Your task to perform on an android device: Clear the shopping cart on target.com. Add "razer kraken" to the cart on target.com Image 0: 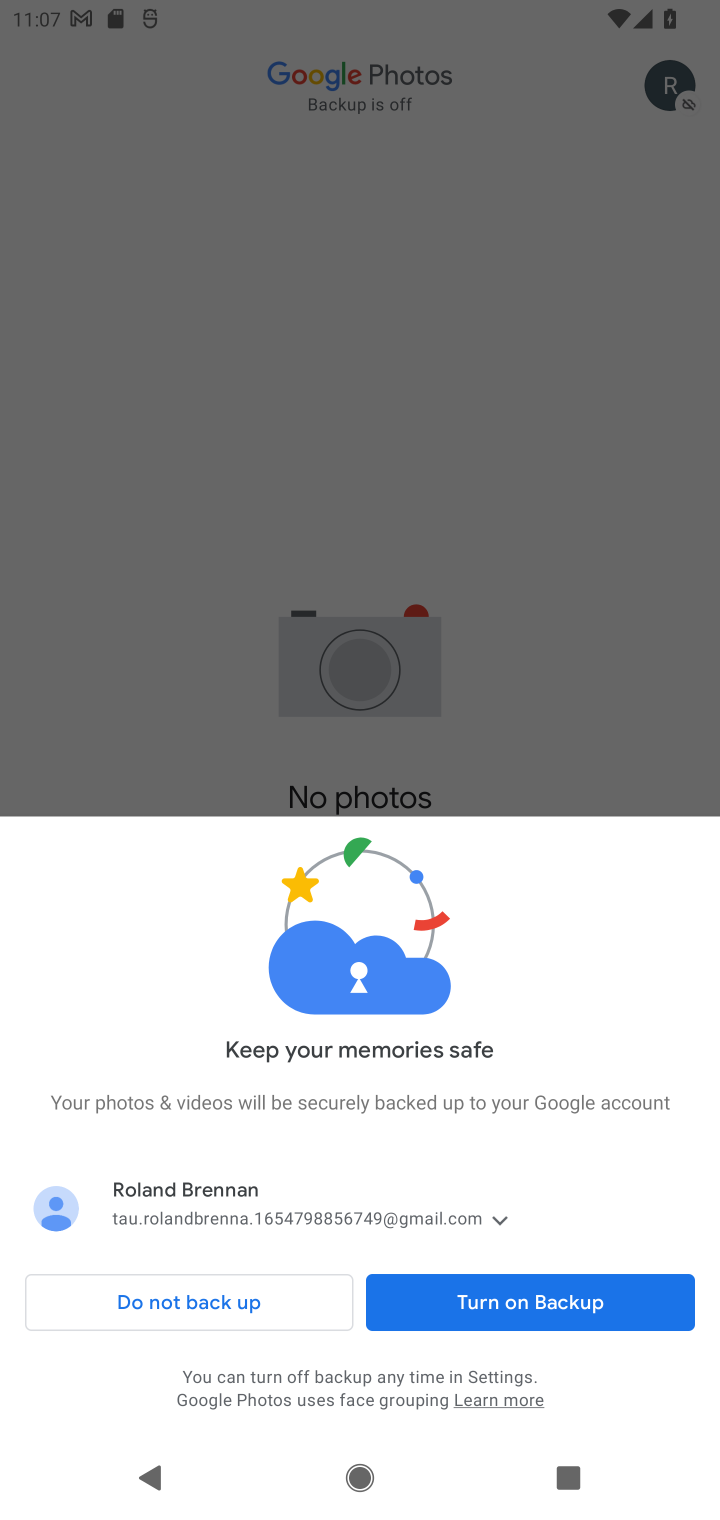
Step 0: press home button
Your task to perform on an android device: Clear the shopping cart on target.com. Add "razer kraken" to the cart on target.com Image 1: 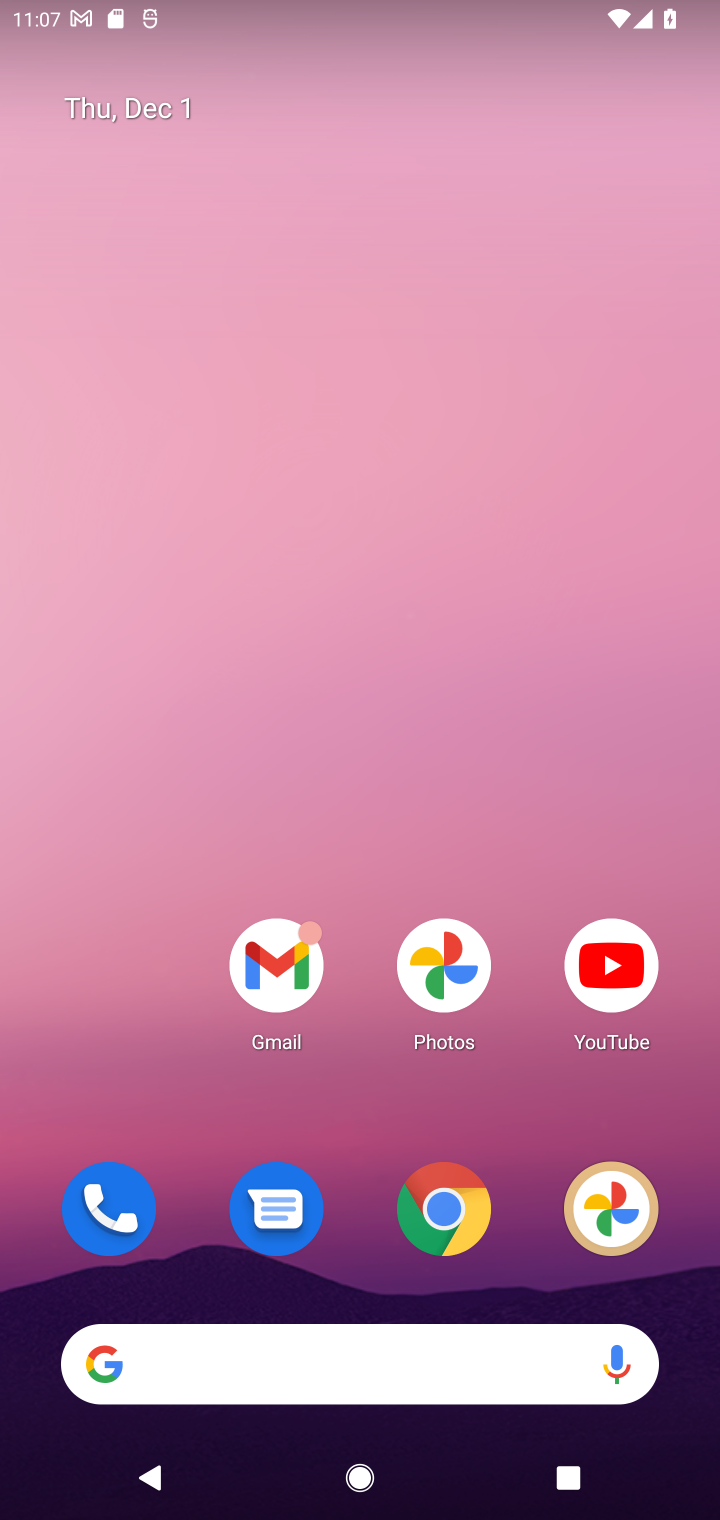
Step 1: click (428, 1199)
Your task to perform on an android device: Clear the shopping cart on target.com. Add "razer kraken" to the cart on target.com Image 2: 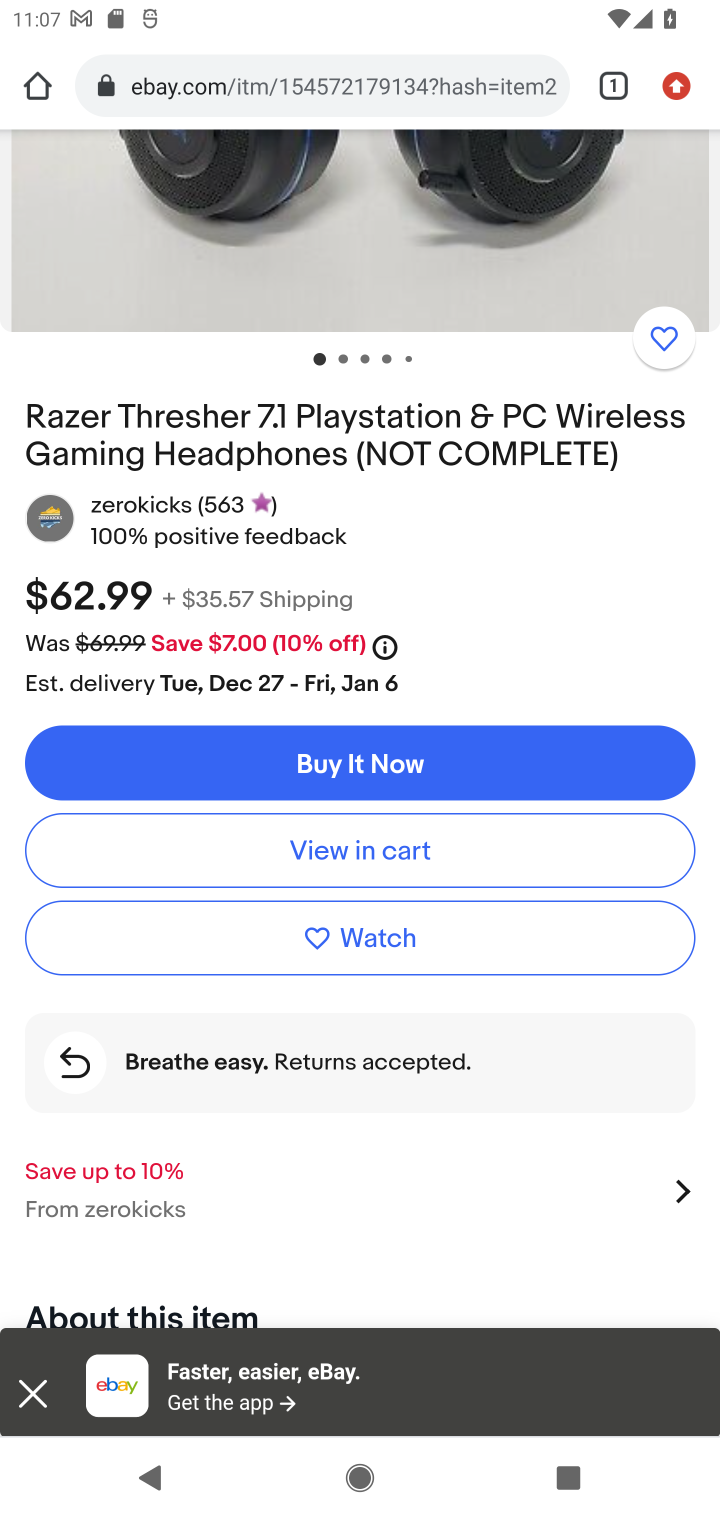
Step 2: click (302, 92)
Your task to perform on an android device: Clear the shopping cart on target.com. Add "razer kraken" to the cart on target.com Image 3: 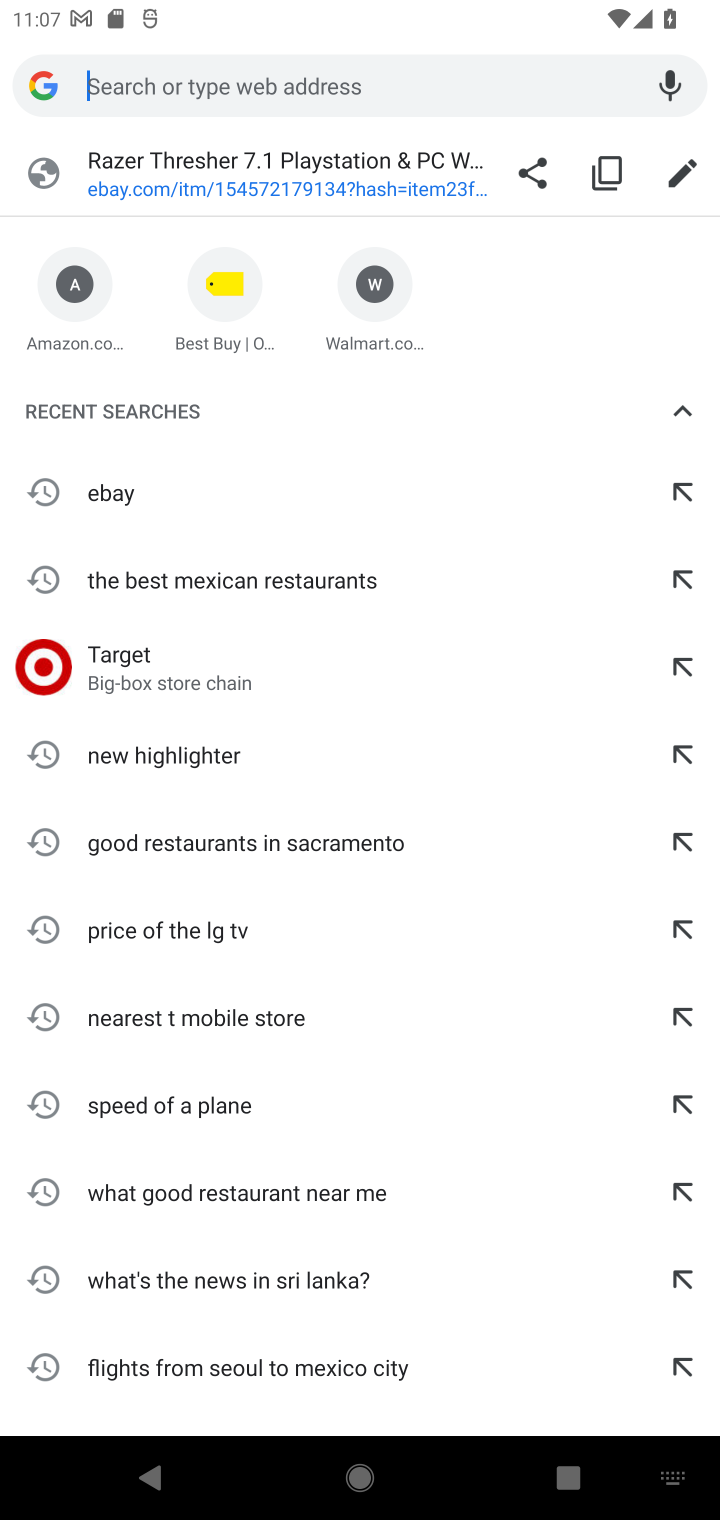
Step 3: type "target"
Your task to perform on an android device: Clear the shopping cart on target.com. Add "razer kraken" to the cart on target.com Image 4: 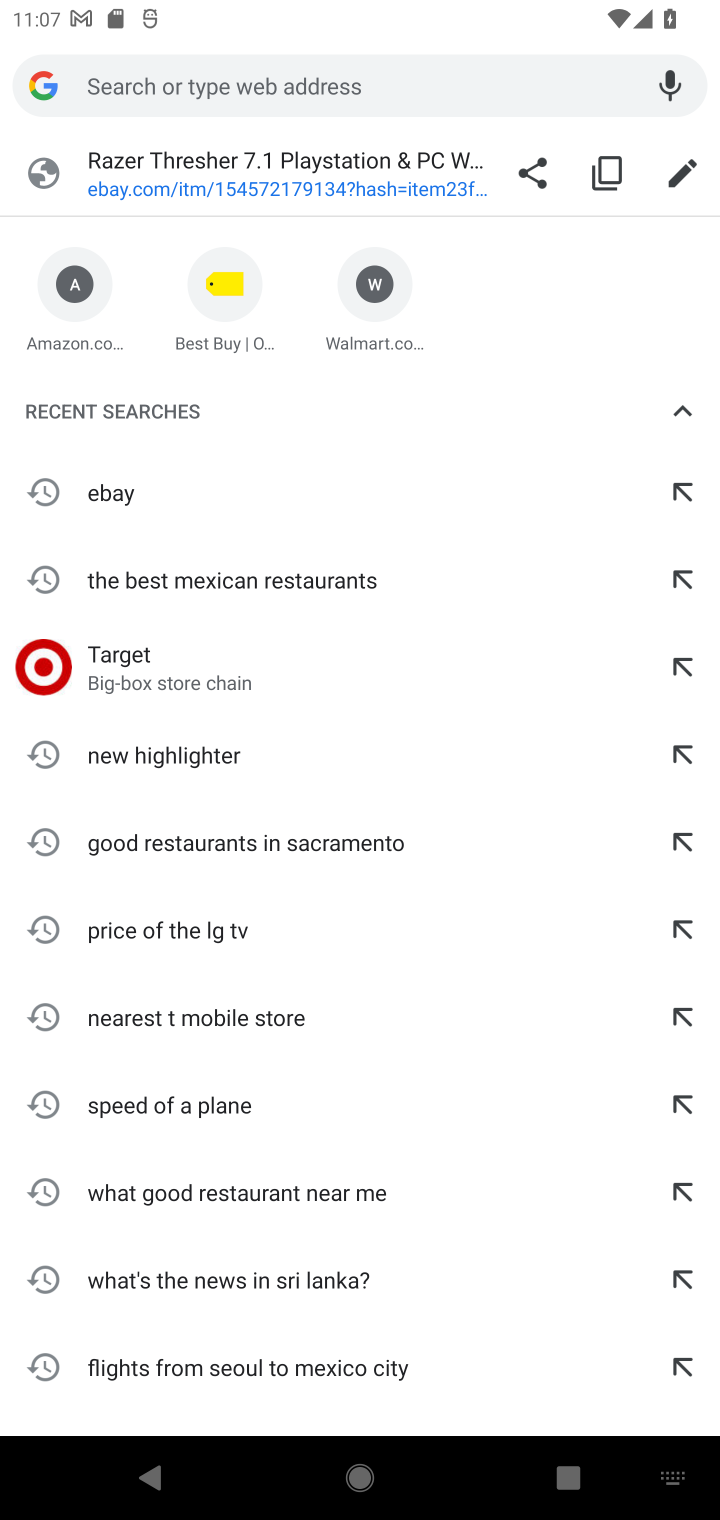
Step 4: click (176, 662)
Your task to perform on an android device: Clear the shopping cart on target.com. Add "razer kraken" to the cart on target.com Image 5: 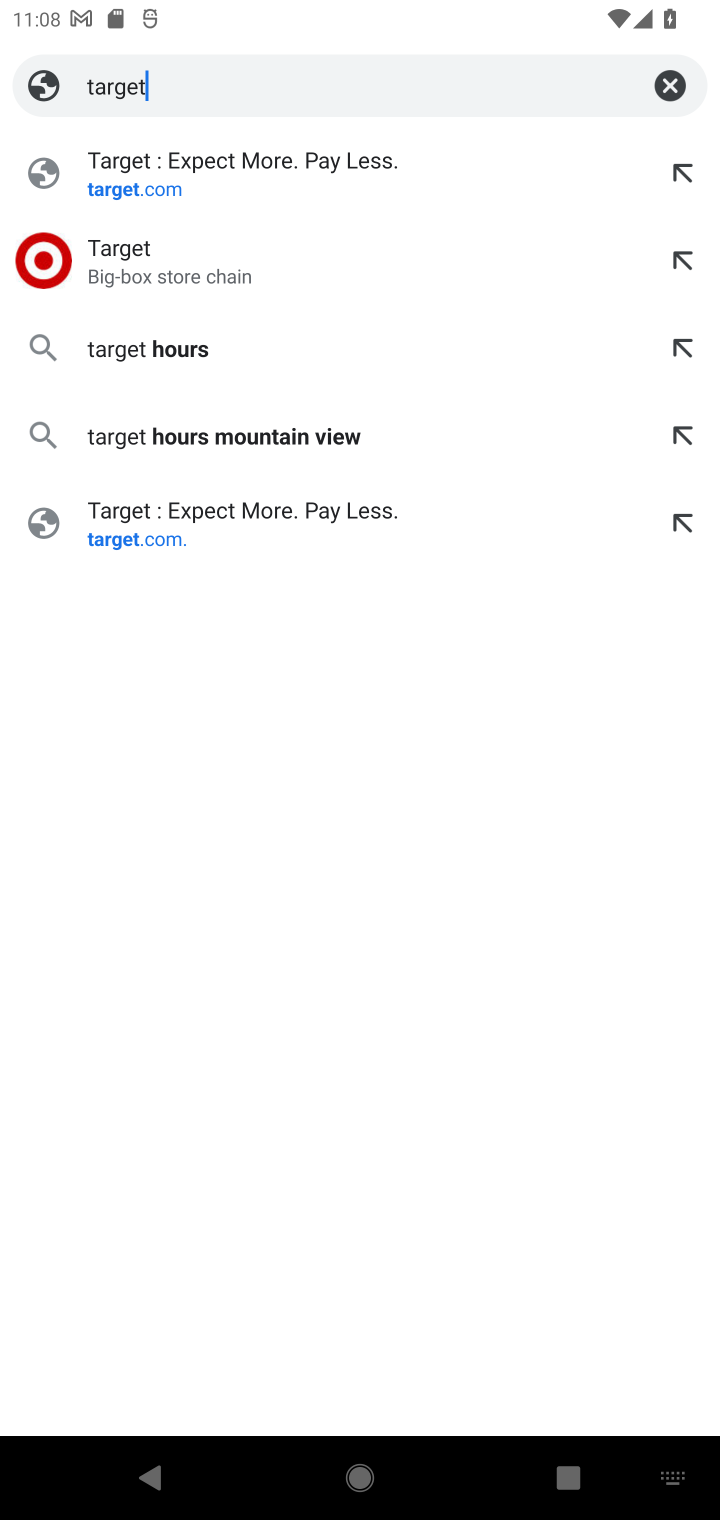
Step 5: click (170, 177)
Your task to perform on an android device: Clear the shopping cart on target.com. Add "razer kraken" to the cart on target.com Image 6: 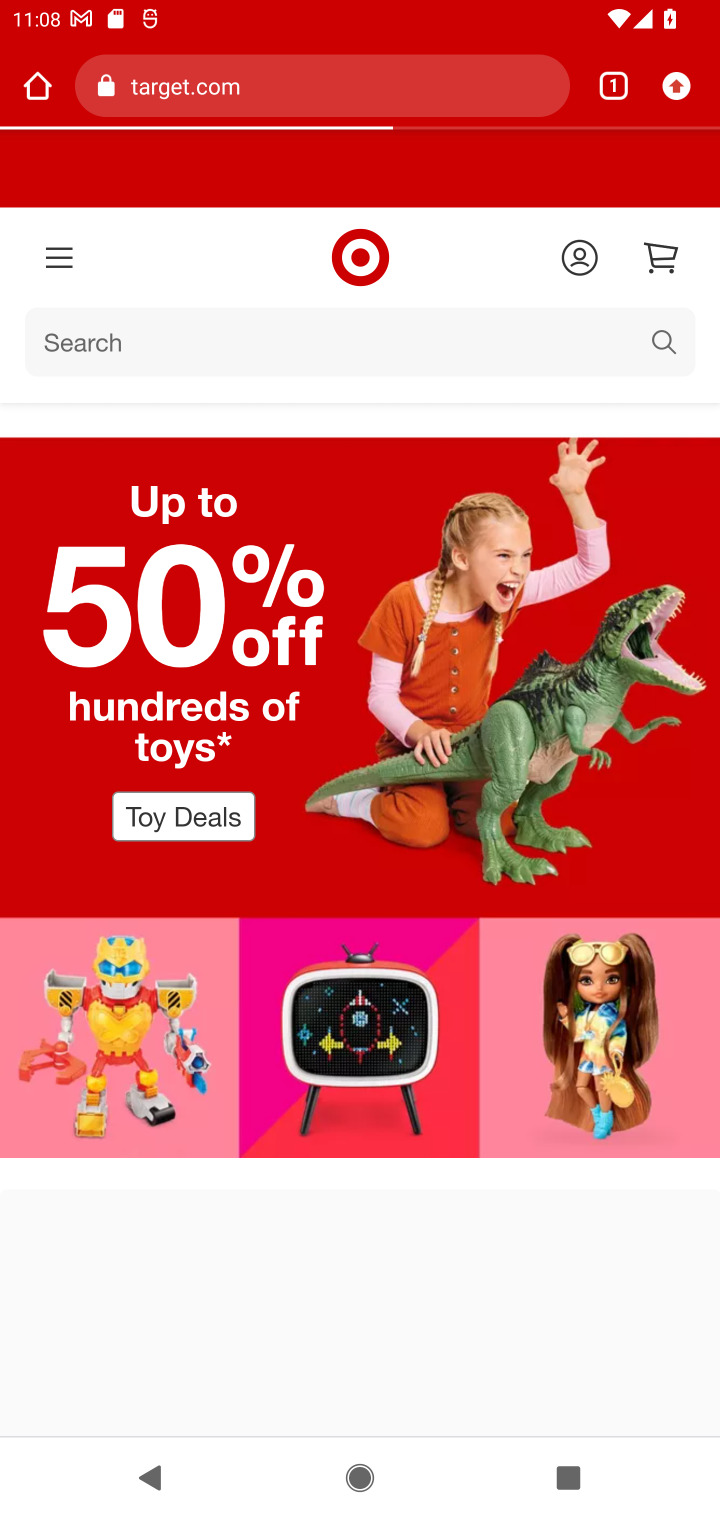
Step 6: click (554, 336)
Your task to perform on an android device: Clear the shopping cart on target.com. Add "razer kraken" to the cart on target.com Image 7: 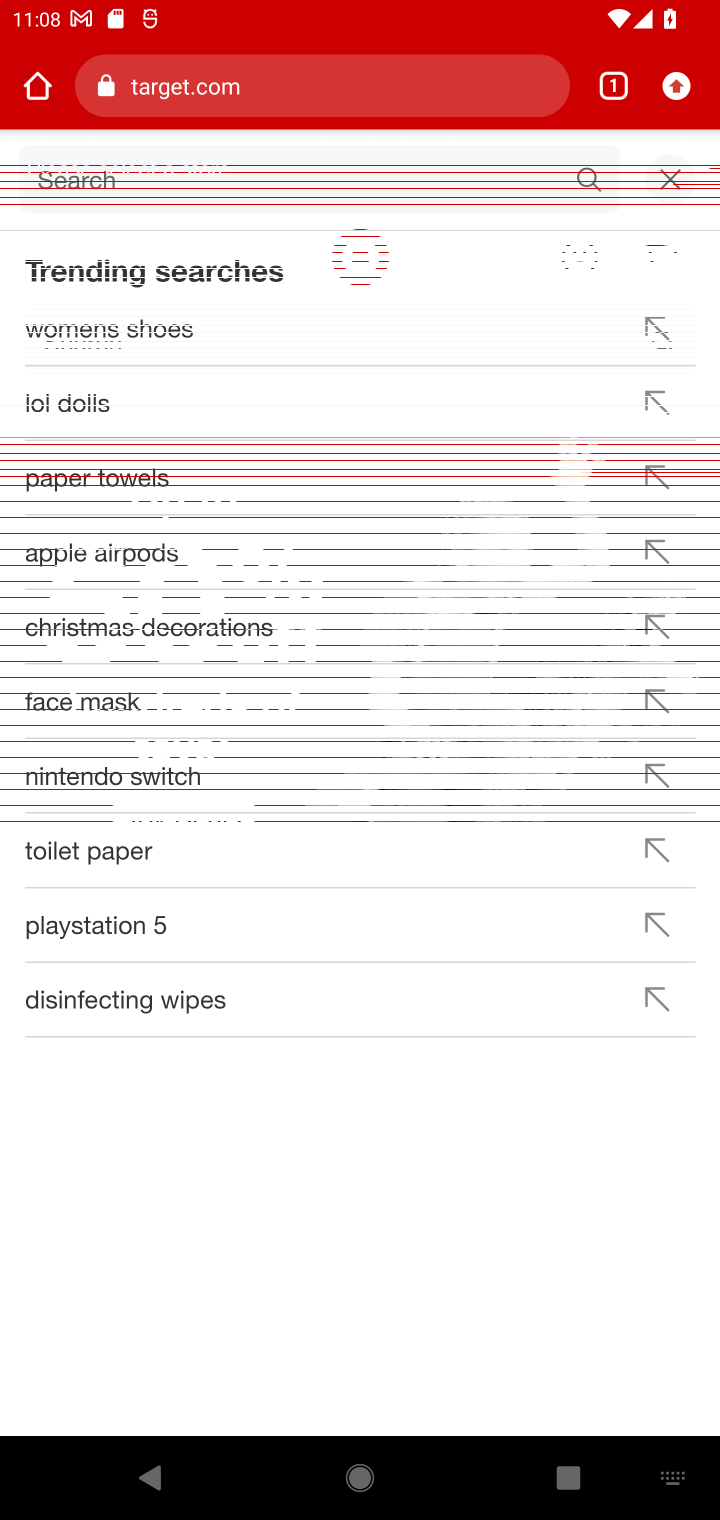
Step 7: type "razer kraken"
Your task to perform on an android device: Clear the shopping cart on target.com. Add "razer kraken" to the cart on target.com Image 8: 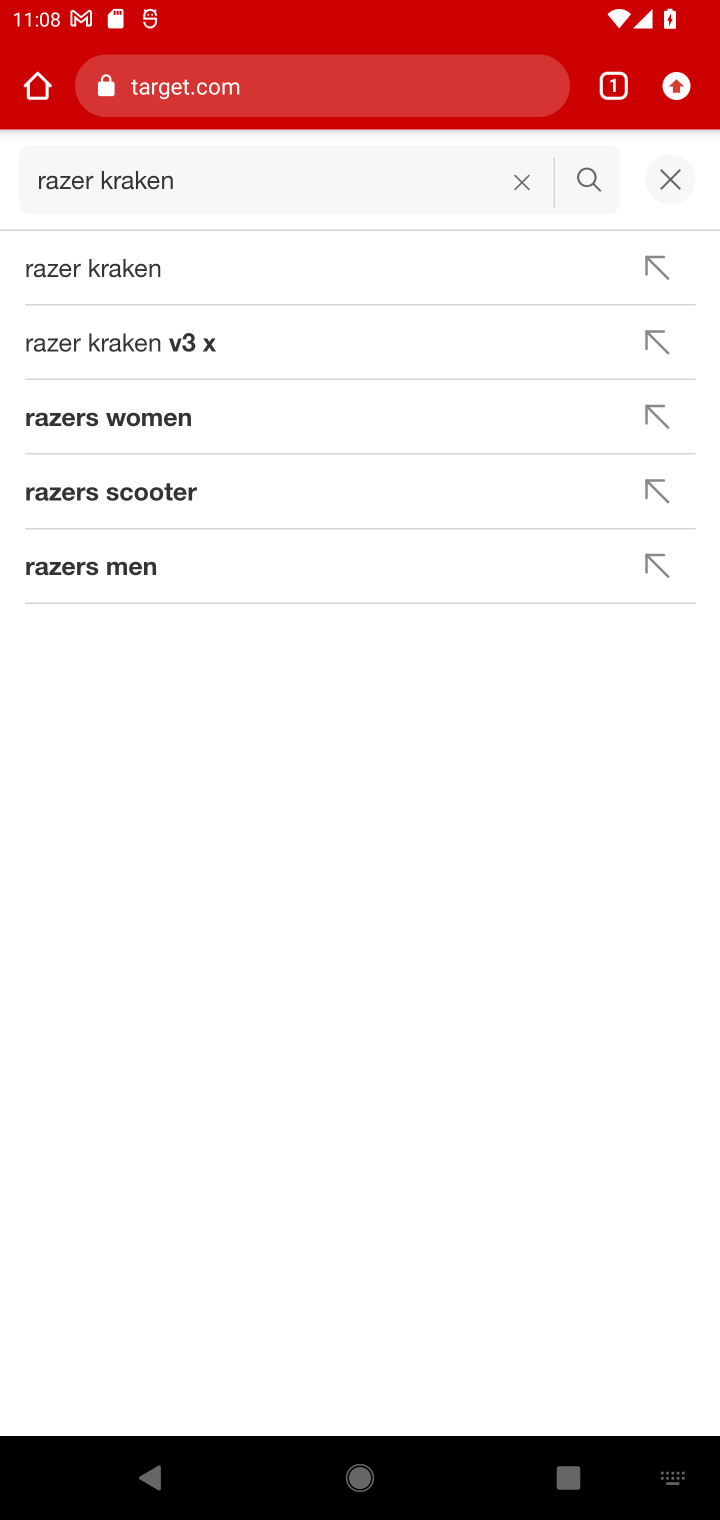
Step 8: click (94, 279)
Your task to perform on an android device: Clear the shopping cart on target.com. Add "razer kraken" to the cart on target.com Image 9: 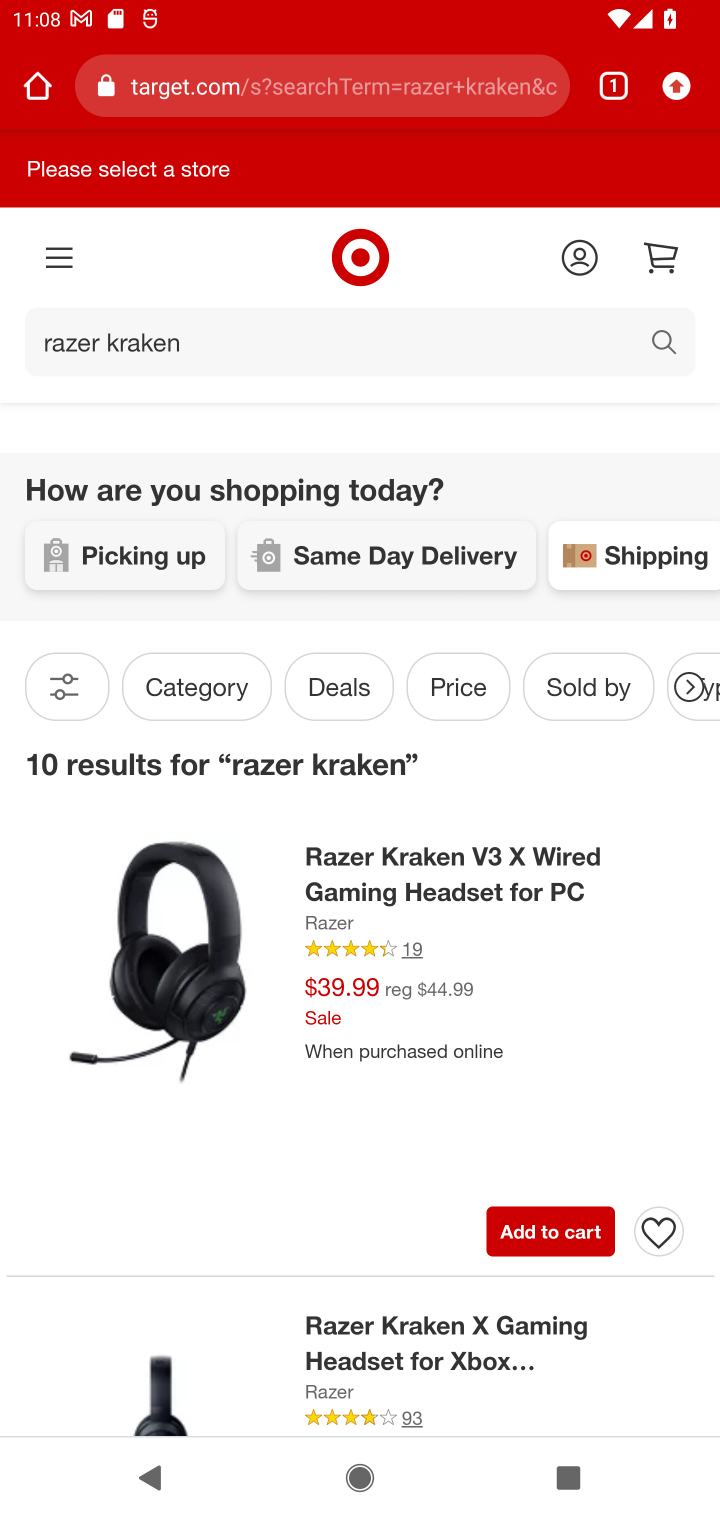
Step 9: click (533, 1231)
Your task to perform on an android device: Clear the shopping cart on target.com. Add "razer kraken" to the cart on target.com Image 10: 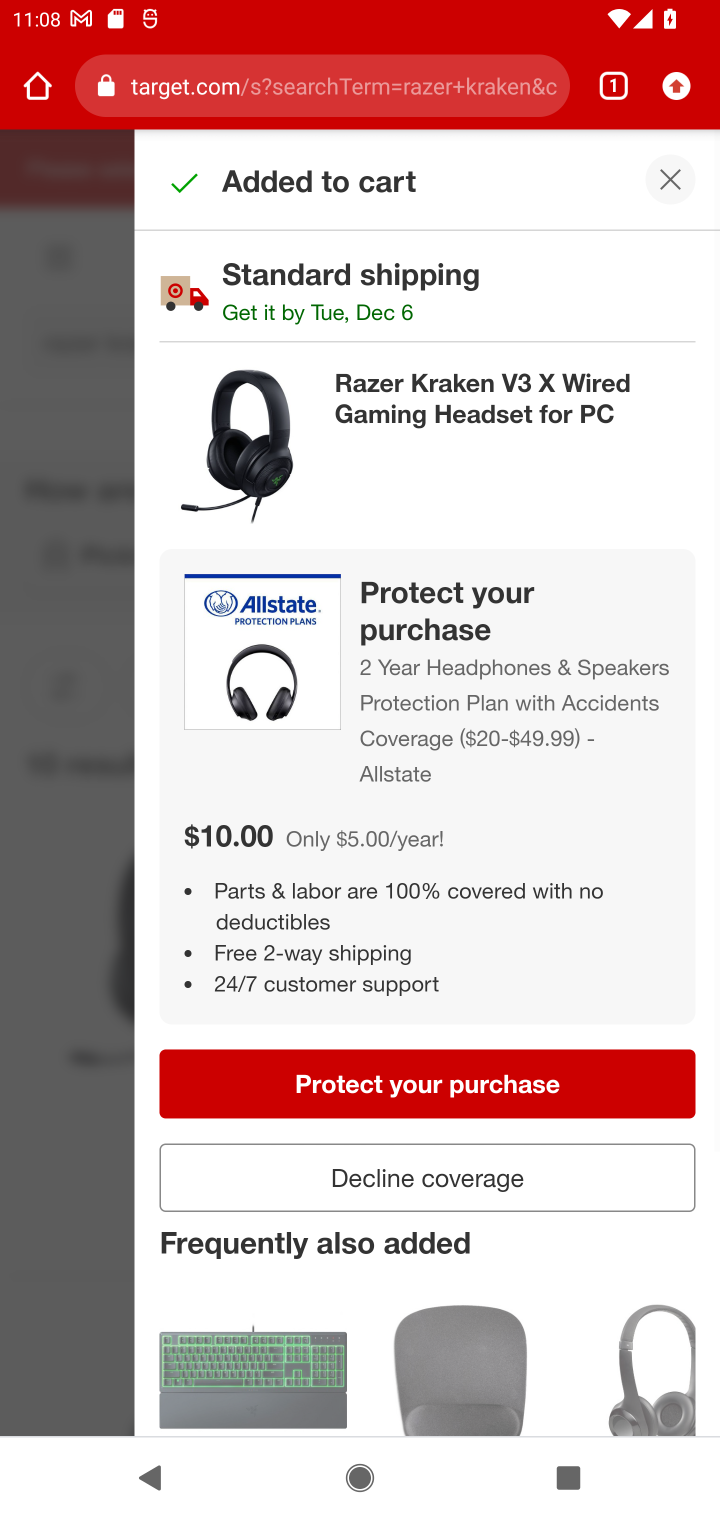
Step 10: click (668, 173)
Your task to perform on an android device: Clear the shopping cart on target.com. Add "razer kraken" to the cart on target.com Image 11: 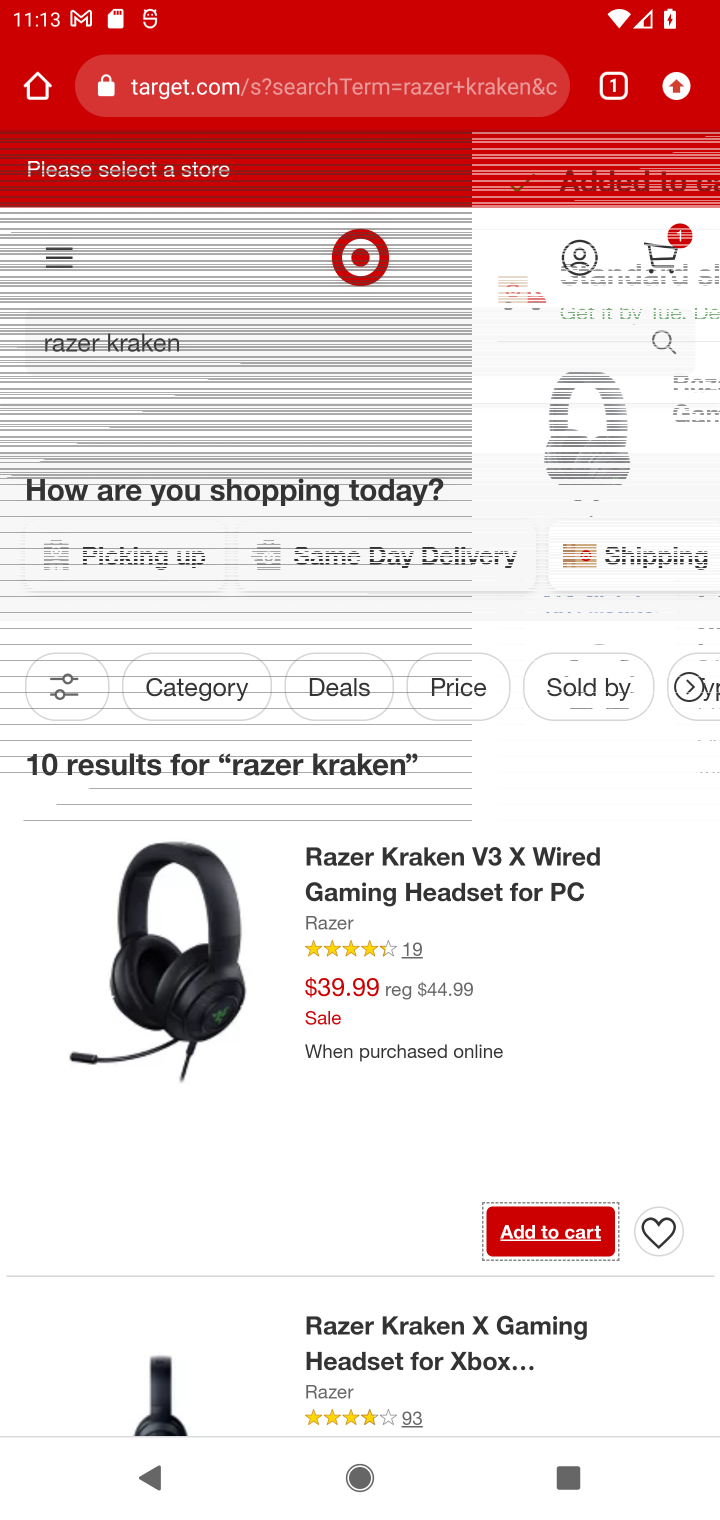
Step 11: task complete